Your task to perform on an android device: Search for sushi restaurants on Maps Image 0: 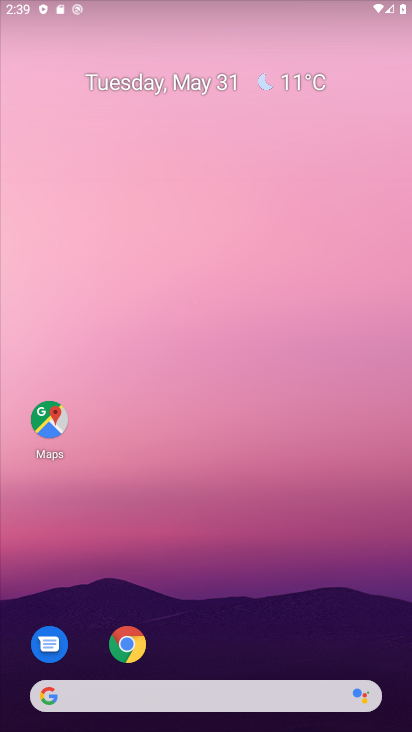
Step 0: click (141, 699)
Your task to perform on an android device: Search for sushi restaurants on Maps Image 1: 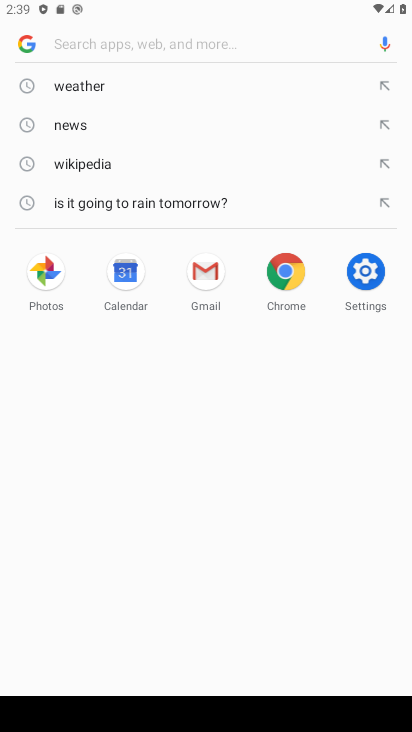
Step 1: press home button
Your task to perform on an android device: Search for sushi restaurants on Maps Image 2: 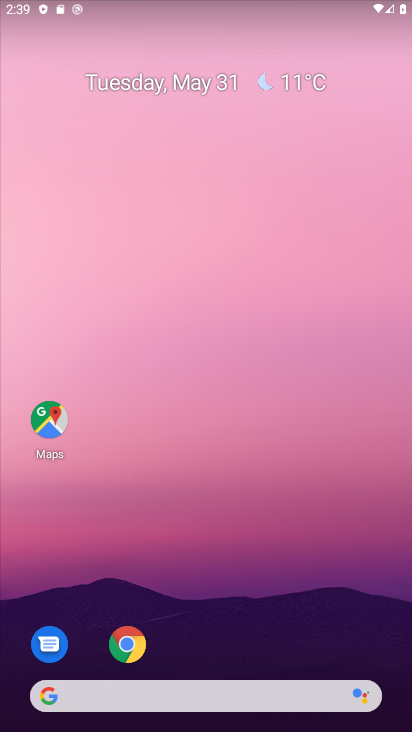
Step 2: click (34, 399)
Your task to perform on an android device: Search for sushi restaurants on Maps Image 3: 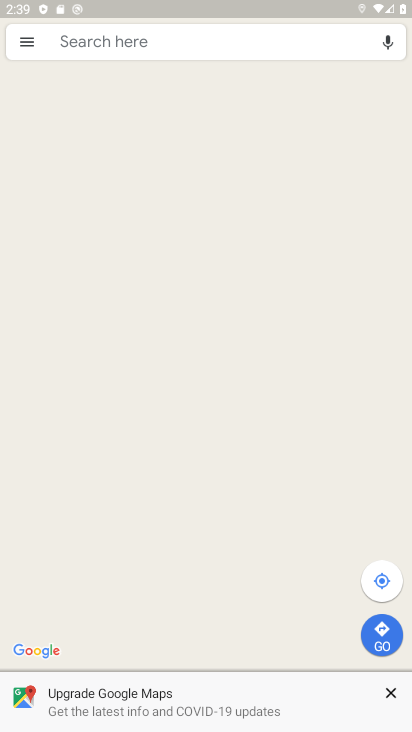
Step 3: click (161, 30)
Your task to perform on an android device: Search for sushi restaurants on Maps Image 4: 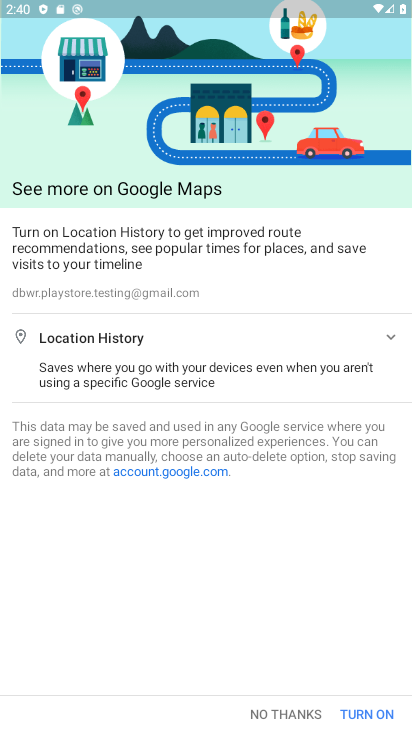
Step 4: press back button
Your task to perform on an android device: Search for sushi restaurants on Maps Image 5: 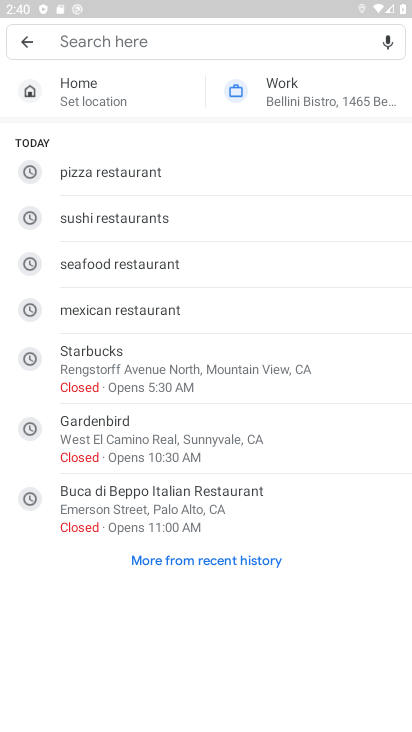
Step 5: click (169, 208)
Your task to perform on an android device: Search for sushi restaurants on Maps Image 6: 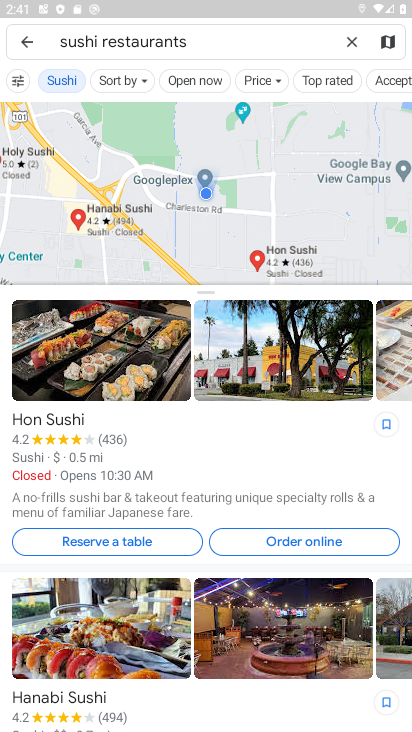
Step 6: task complete